Your task to perform on an android device: set default search engine in the chrome app Image 0: 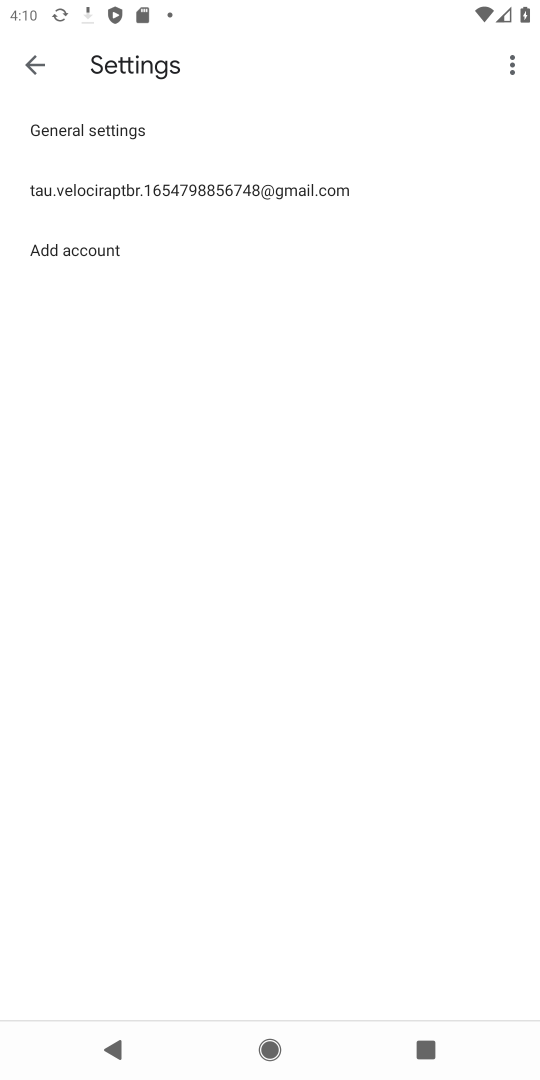
Step 0: press home button
Your task to perform on an android device: set default search engine in the chrome app Image 1: 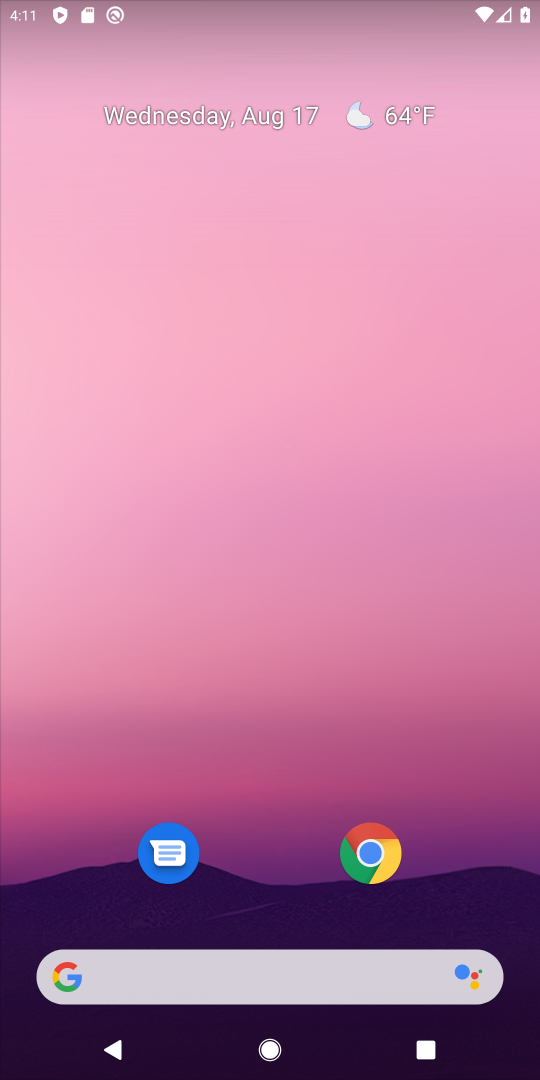
Step 1: click (369, 852)
Your task to perform on an android device: set default search engine in the chrome app Image 2: 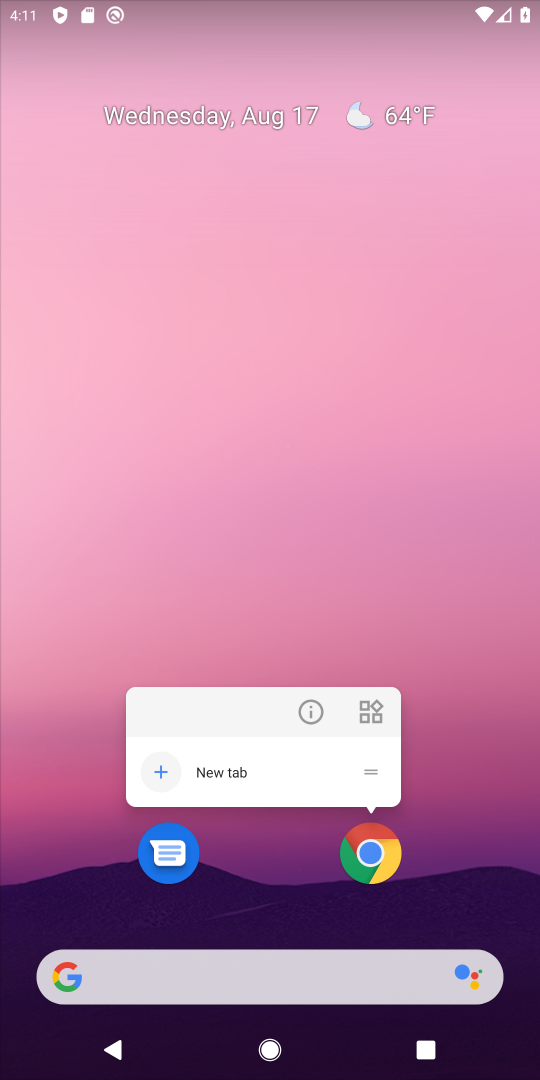
Step 2: click (375, 858)
Your task to perform on an android device: set default search engine in the chrome app Image 3: 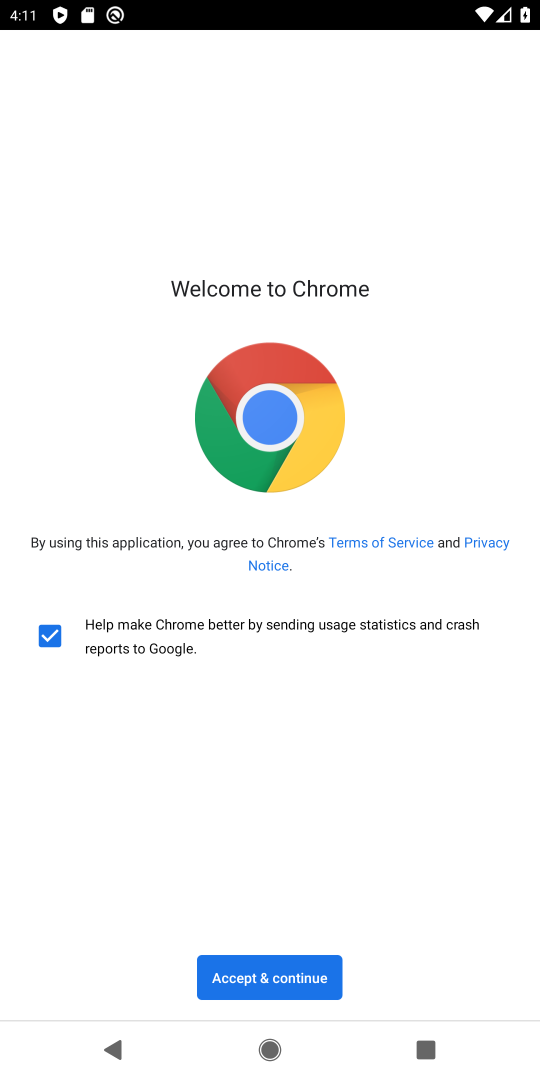
Step 3: click (265, 969)
Your task to perform on an android device: set default search engine in the chrome app Image 4: 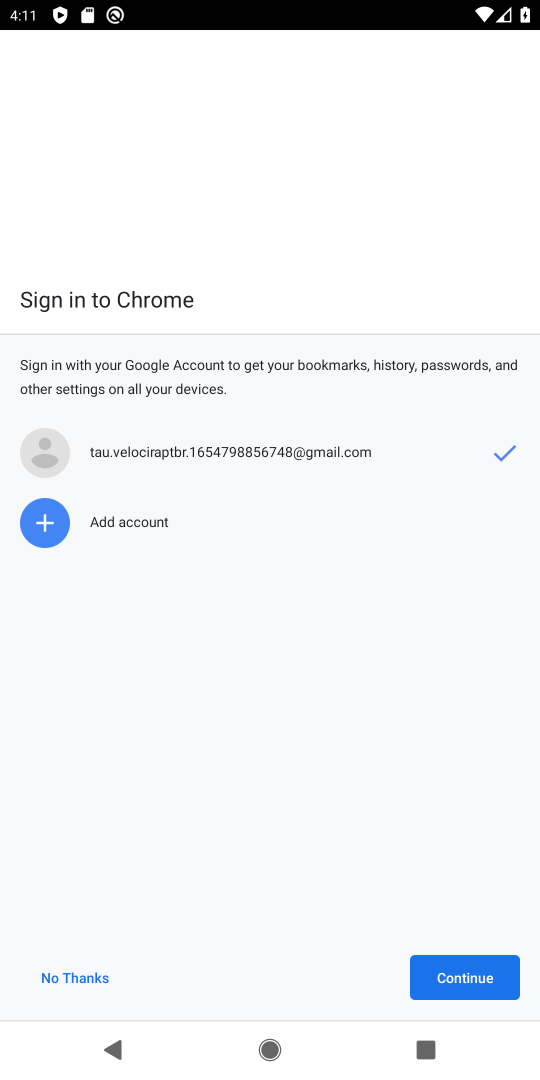
Step 4: click (457, 973)
Your task to perform on an android device: set default search engine in the chrome app Image 5: 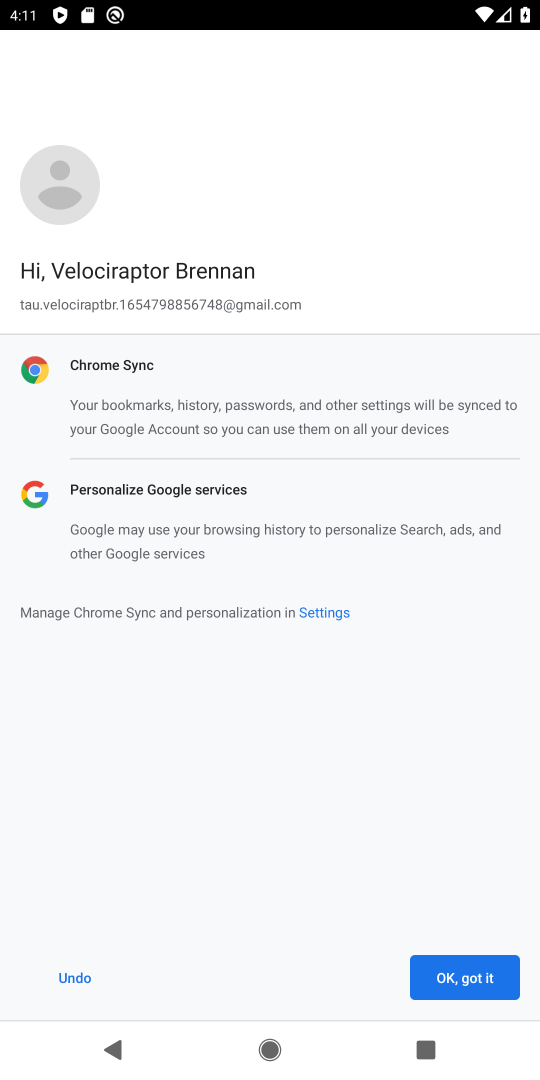
Step 5: click (469, 979)
Your task to perform on an android device: set default search engine in the chrome app Image 6: 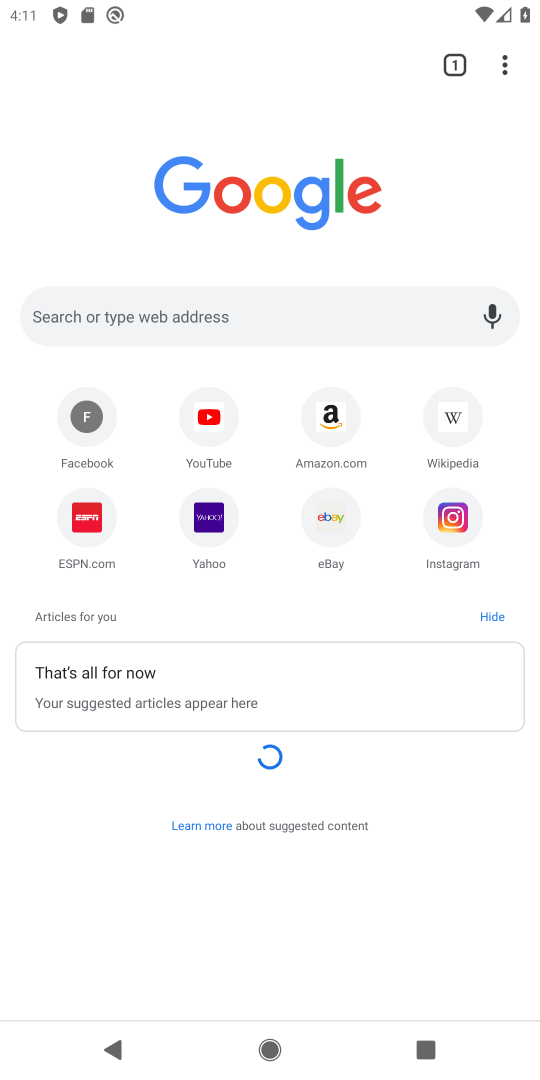
Step 6: click (497, 67)
Your task to perform on an android device: set default search engine in the chrome app Image 7: 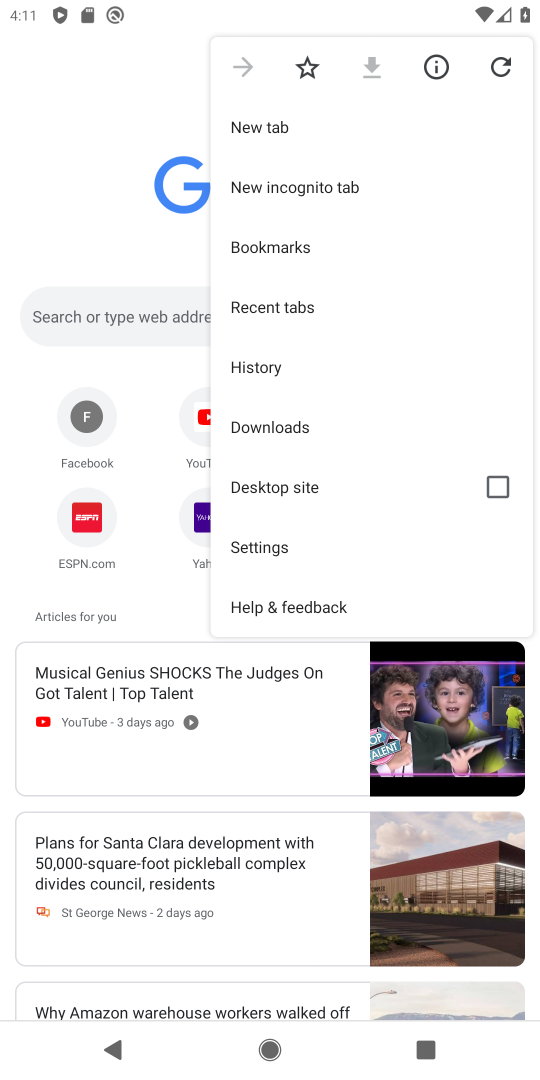
Step 7: click (267, 548)
Your task to perform on an android device: set default search engine in the chrome app Image 8: 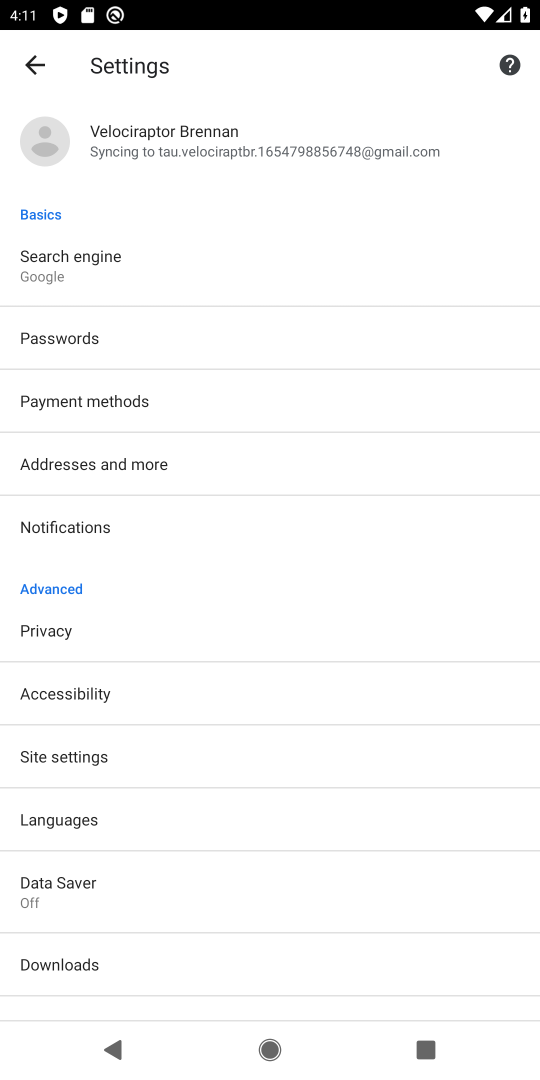
Step 8: click (71, 260)
Your task to perform on an android device: set default search engine in the chrome app Image 9: 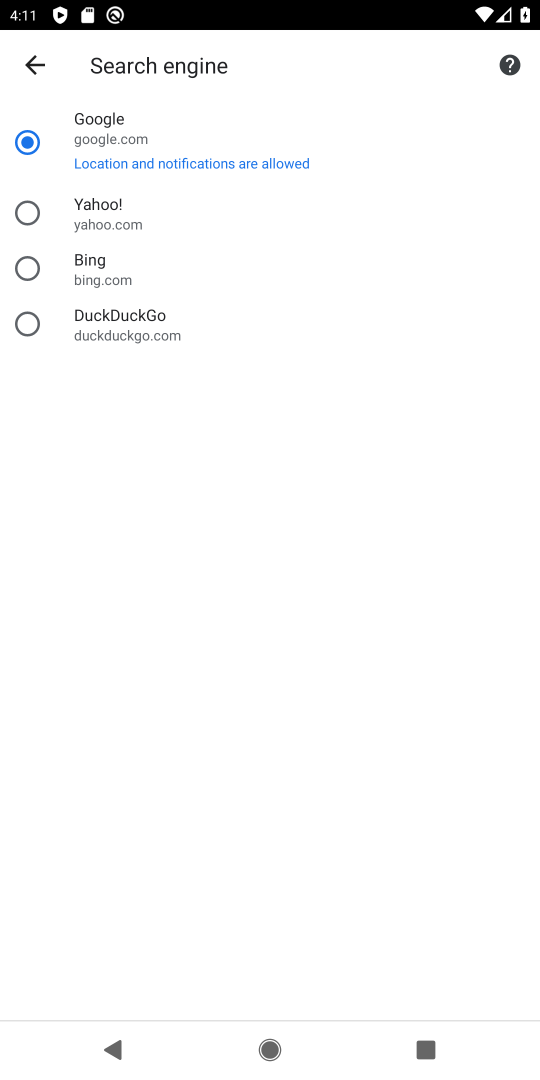
Step 9: click (30, 213)
Your task to perform on an android device: set default search engine in the chrome app Image 10: 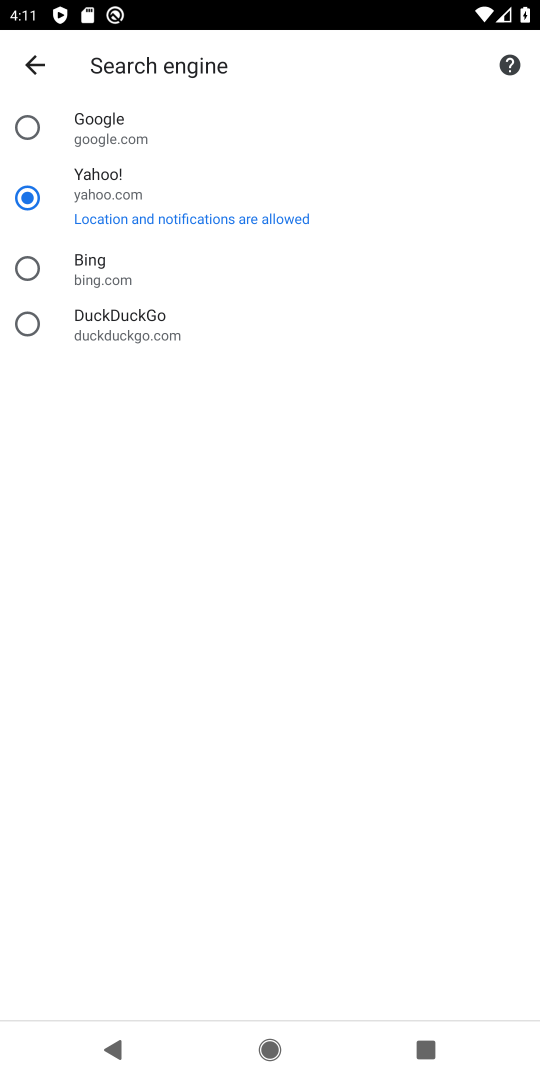
Step 10: task complete